Your task to perform on an android device: Open Google Maps Image 0: 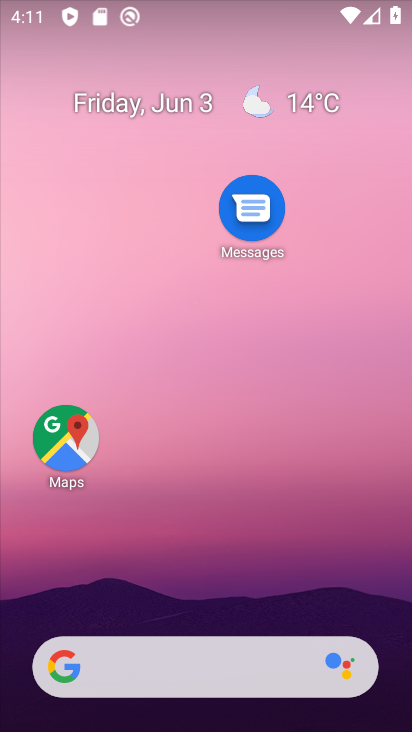
Step 0: click (59, 427)
Your task to perform on an android device: Open Google Maps Image 1: 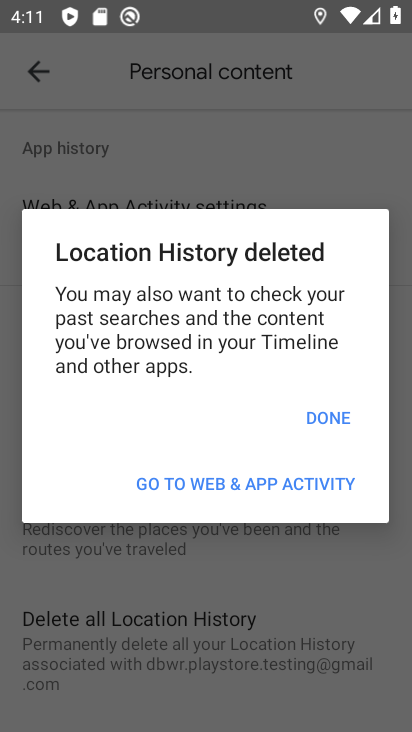
Step 1: click (333, 414)
Your task to perform on an android device: Open Google Maps Image 2: 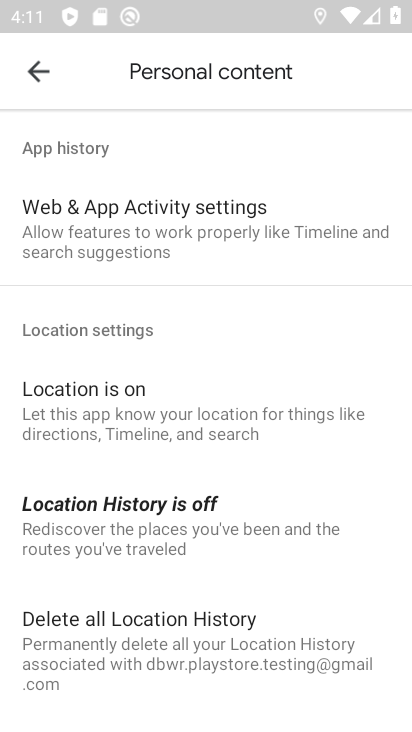
Step 2: click (45, 75)
Your task to perform on an android device: Open Google Maps Image 3: 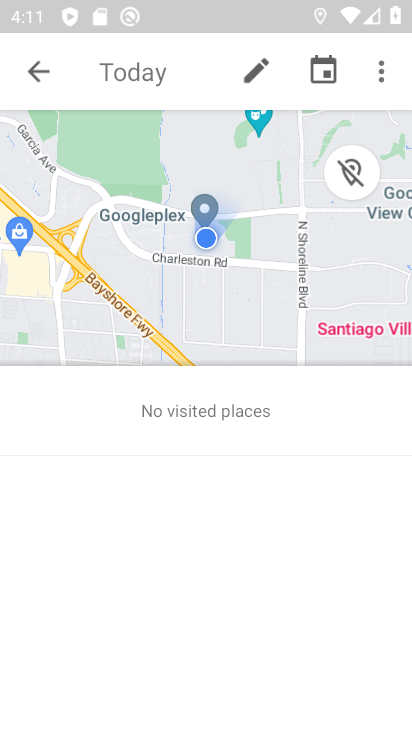
Step 3: click (45, 75)
Your task to perform on an android device: Open Google Maps Image 4: 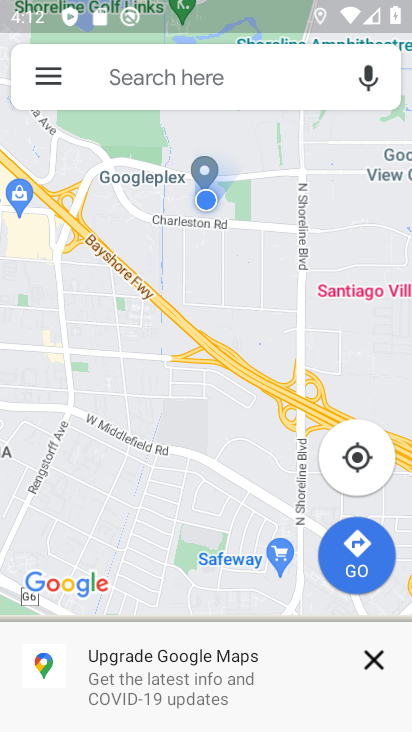
Step 4: task complete